Your task to perform on an android device: turn on bluetooth scan Image 0: 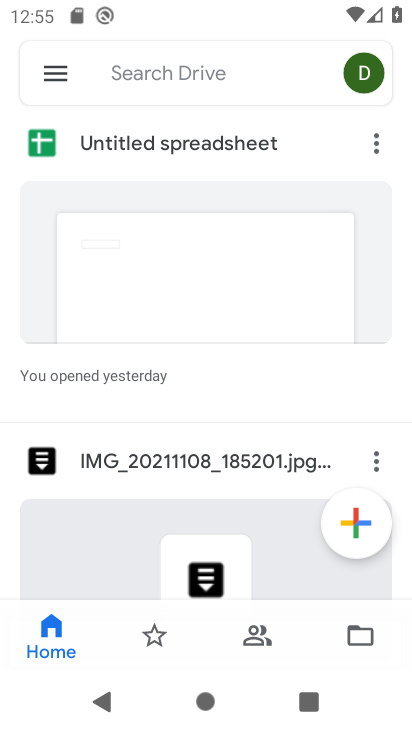
Step 0: press home button
Your task to perform on an android device: turn on bluetooth scan Image 1: 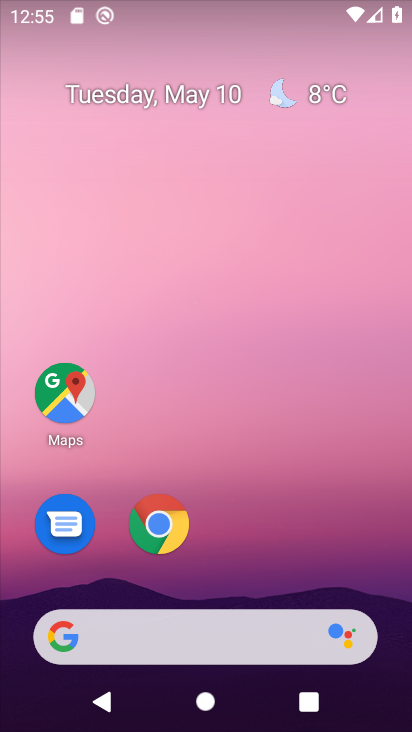
Step 1: drag from (306, 548) to (252, 84)
Your task to perform on an android device: turn on bluetooth scan Image 2: 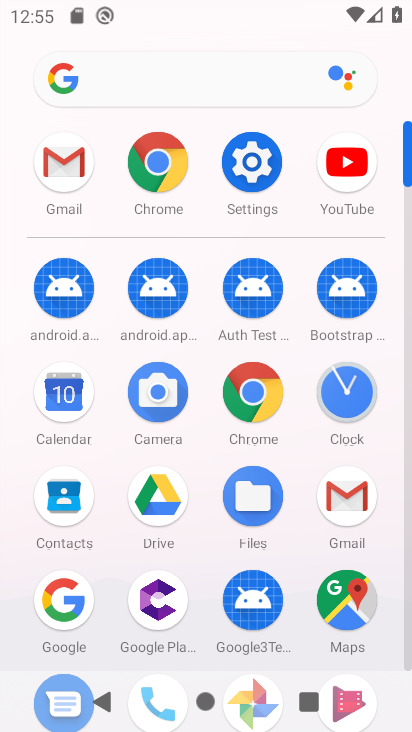
Step 2: click (249, 144)
Your task to perform on an android device: turn on bluetooth scan Image 3: 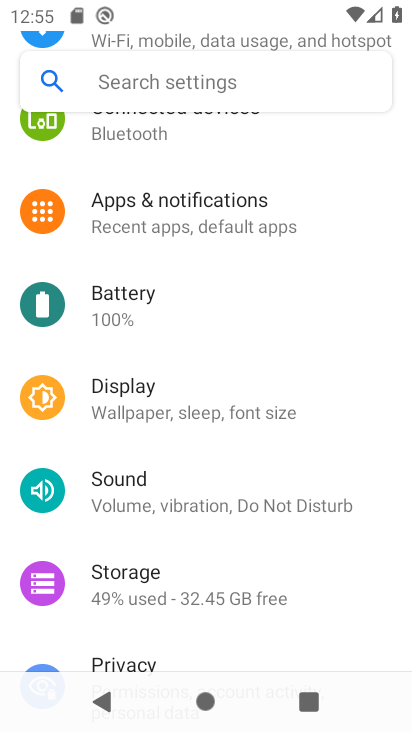
Step 3: drag from (237, 566) to (247, 168)
Your task to perform on an android device: turn on bluetooth scan Image 4: 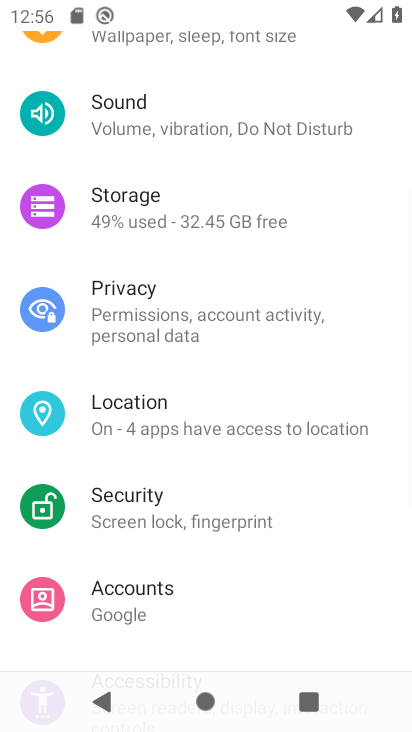
Step 4: click (241, 424)
Your task to perform on an android device: turn on bluetooth scan Image 5: 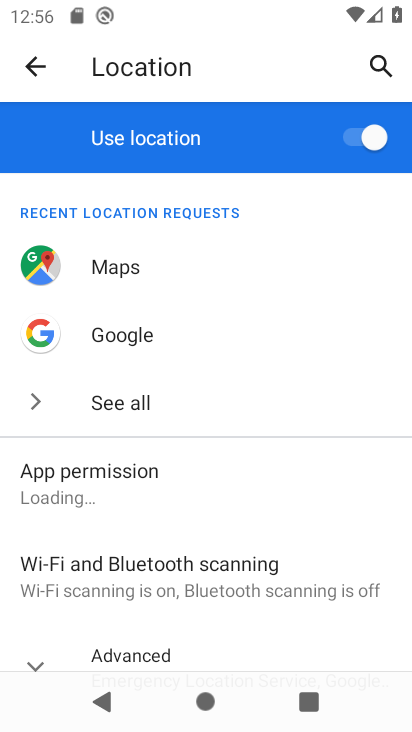
Step 5: click (226, 551)
Your task to perform on an android device: turn on bluetooth scan Image 6: 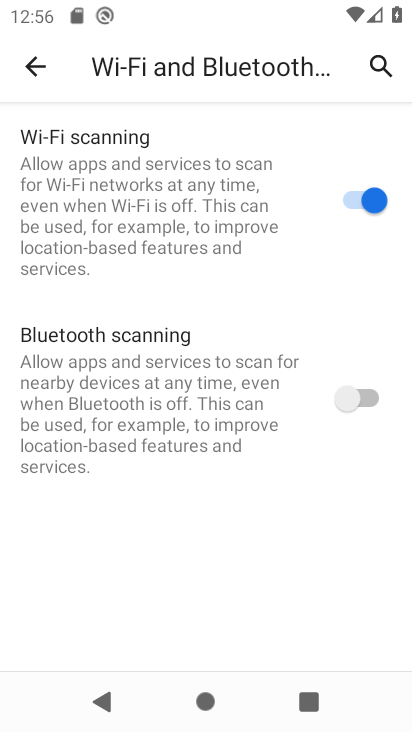
Step 6: click (366, 393)
Your task to perform on an android device: turn on bluetooth scan Image 7: 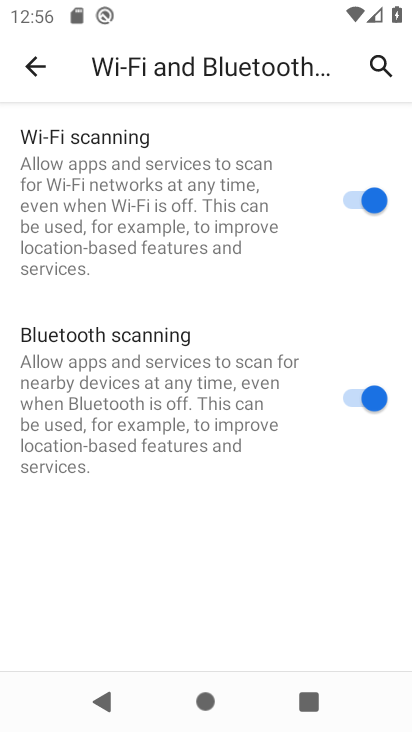
Step 7: task complete